Your task to perform on an android device: Is it going to rain today? Image 0: 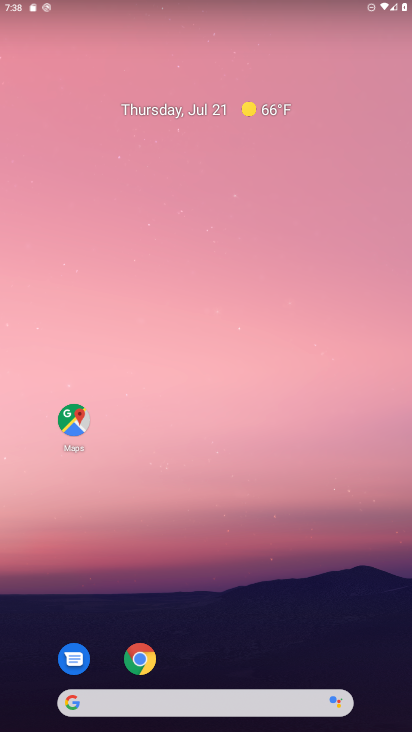
Step 0: drag from (173, 662) to (296, 124)
Your task to perform on an android device: Is it going to rain today? Image 1: 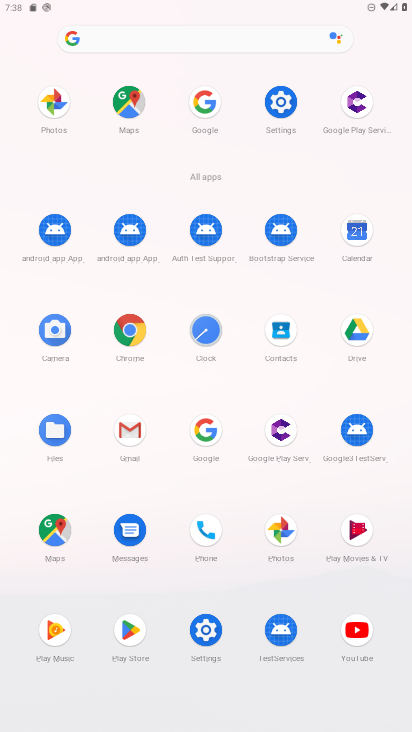
Step 1: click (138, 44)
Your task to perform on an android device: Is it going to rain today? Image 2: 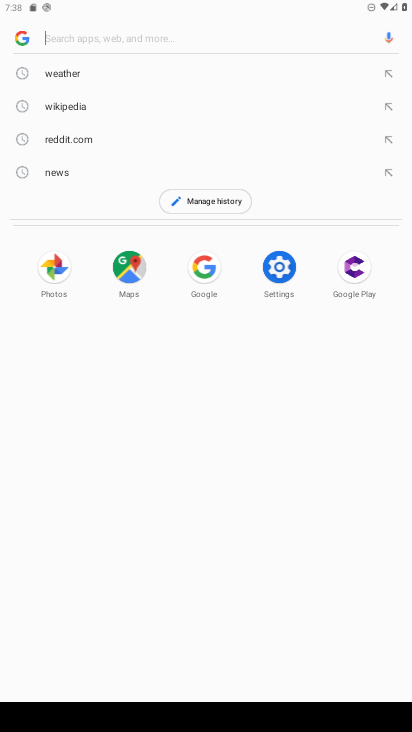
Step 2: type "Is it going to rain today?"
Your task to perform on an android device: Is it going to rain today? Image 3: 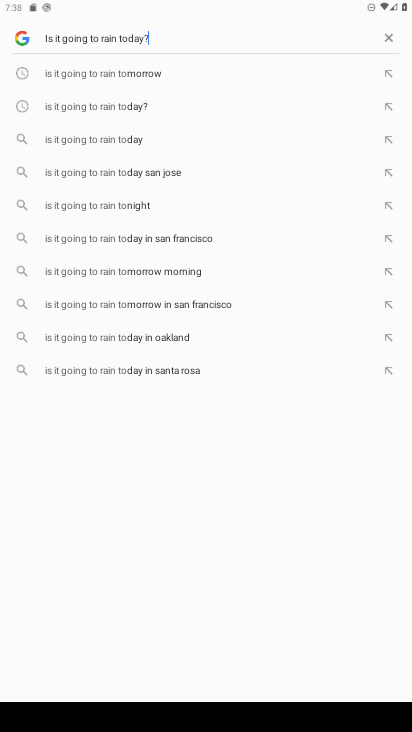
Step 3: type ""
Your task to perform on an android device: Is it going to rain today? Image 4: 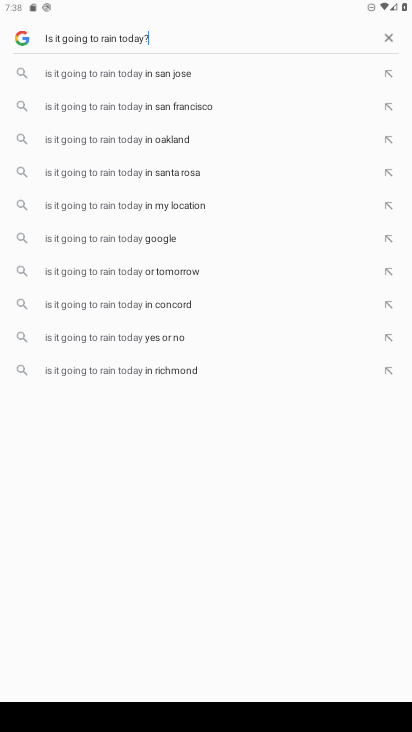
Step 4: click (126, 240)
Your task to perform on an android device: Is it going to rain today? Image 5: 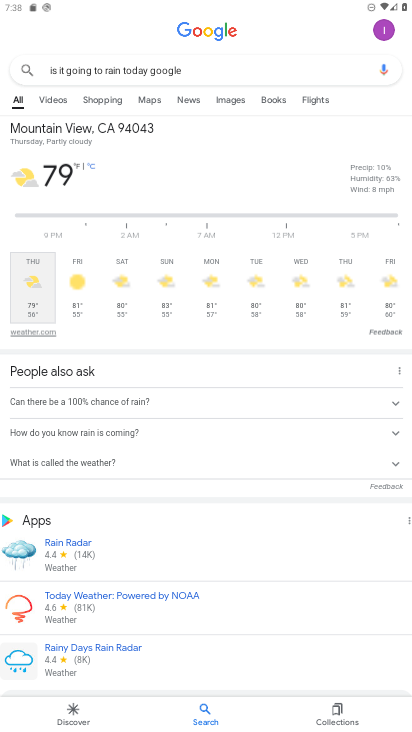
Step 5: task complete